Your task to perform on an android device: Open Yahoo.com Image 0: 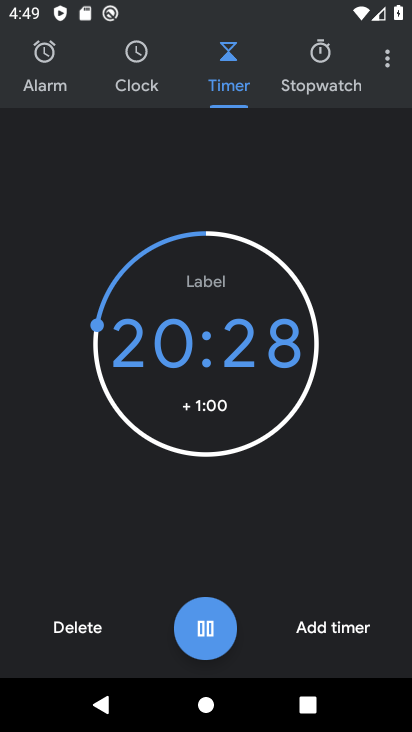
Step 0: press back button
Your task to perform on an android device: Open Yahoo.com Image 1: 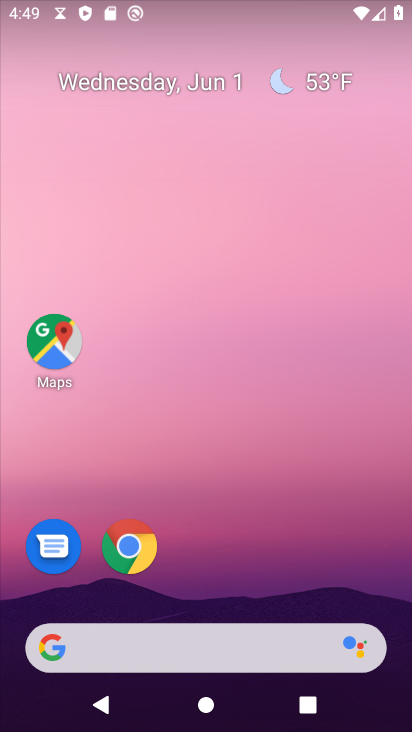
Step 1: drag from (242, 569) to (181, 55)
Your task to perform on an android device: Open Yahoo.com Image 2: 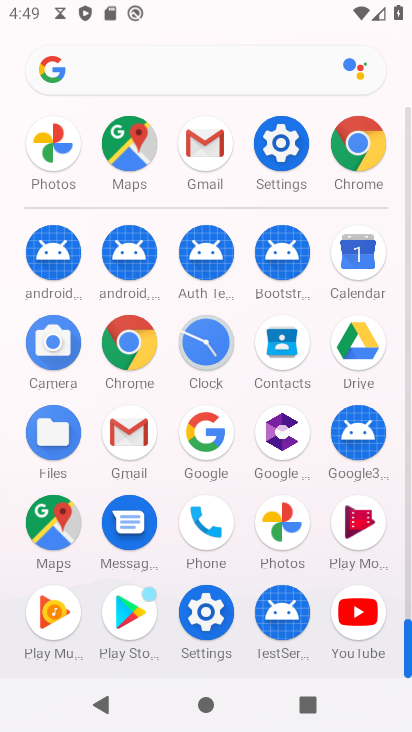
Step 2: drag from (10, 537) to (20, 197)
Your task to perform on an android device: Open Yahoo.com Image 3: 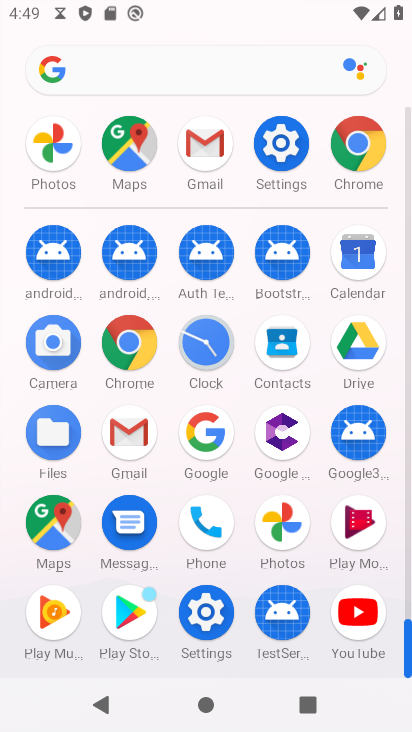
Step 3: click (129, 344)
Your task to perform on an android device: Open Yahoo.com Image 4: 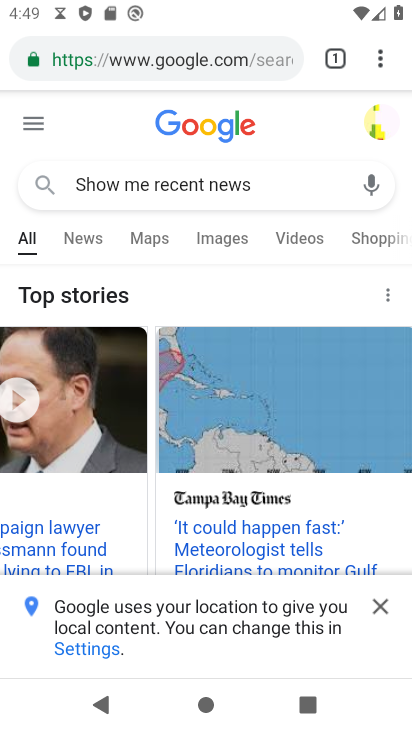
Step 4: click (205, 57)
Your task to perform on an android device: Open Yahoo.com Image 5: 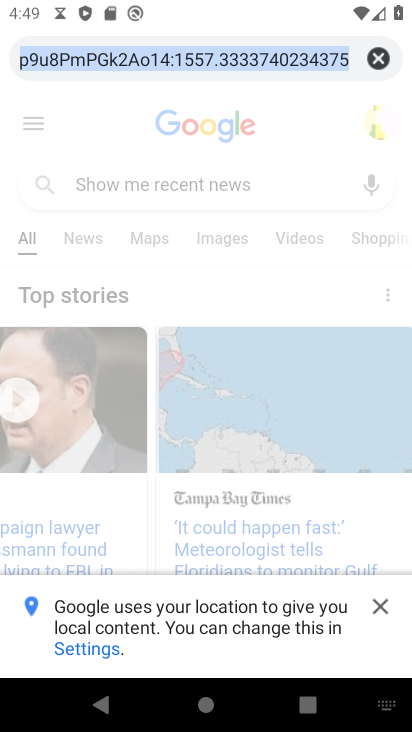
Step 5: click (379, 52)
Your task to perform on an android device: Open Yahoo.com Image 6: 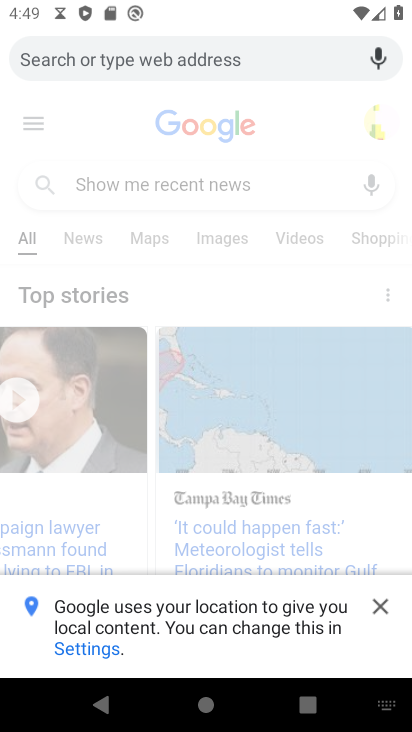
Step 6: type "Yahoo.com"
Your task to perform on an android device: Open Yahoo.com Image 7: 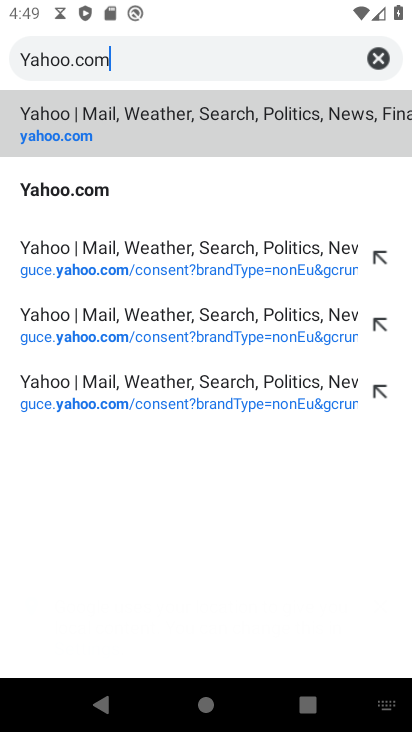
Step 7: type ""
Your task to perform on an android device: Open Yahoo.com Image 8: 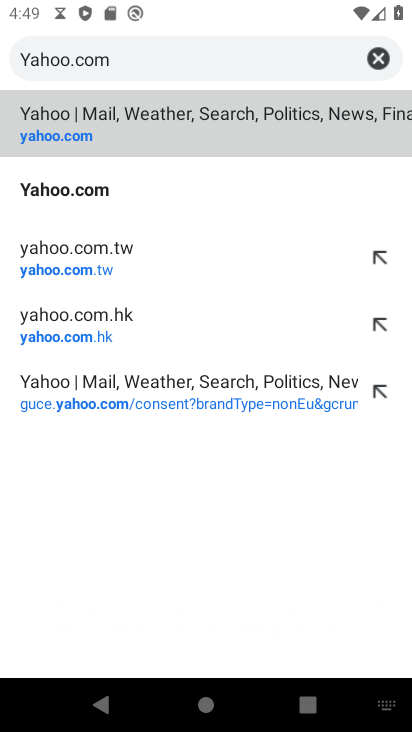
Step 8: click (109, 249)
Your task to perform on an android device: Open Yahoo.com Image 9: 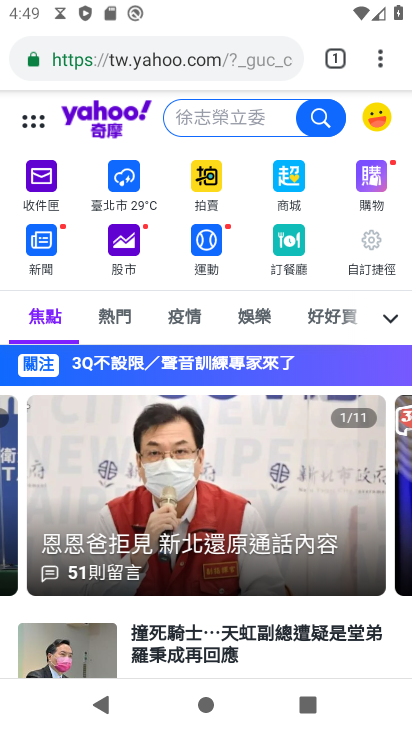
Step 9: press back button
Your task to perform on an android device: Open Yahoo.com Image 10: 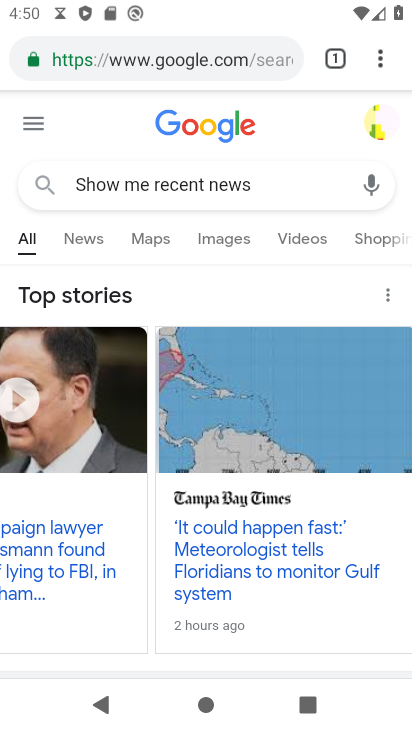
Step 10: click (199, 60)
Your task to perform on an android device: Open Yahoo.com Image 11: 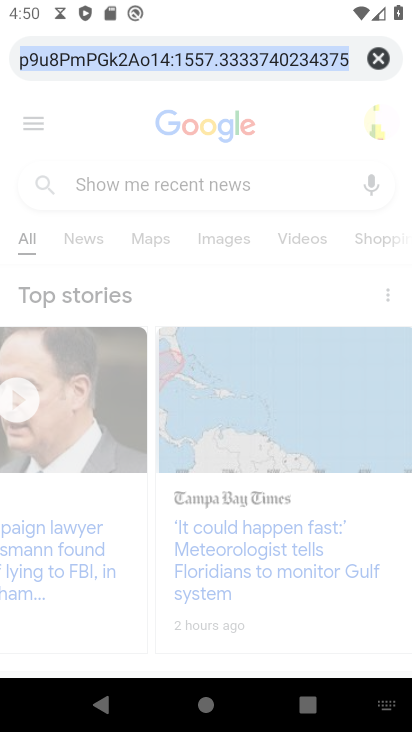
Step 11: click (374, 54)
Your task to perform on an android device: Open Yahoo.com Image 12: 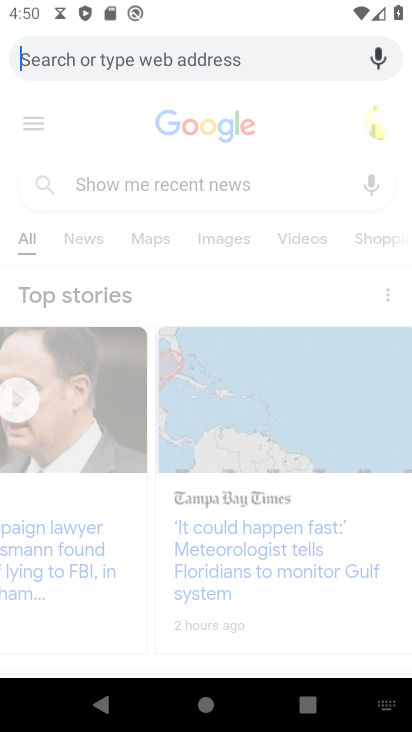
Step 12: type "Yahoo.com"
Your task to perform on an android device: Open Yahoo.com Image 13: 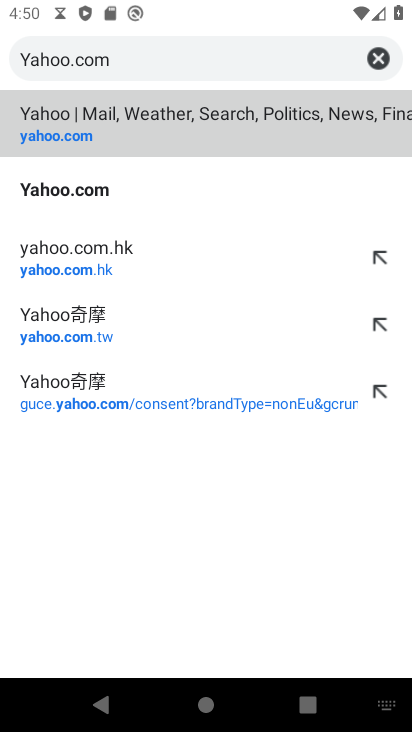
Step 13: click (88, 194)
Your task to perform on an android device: Open Yahoo.com Image 14: 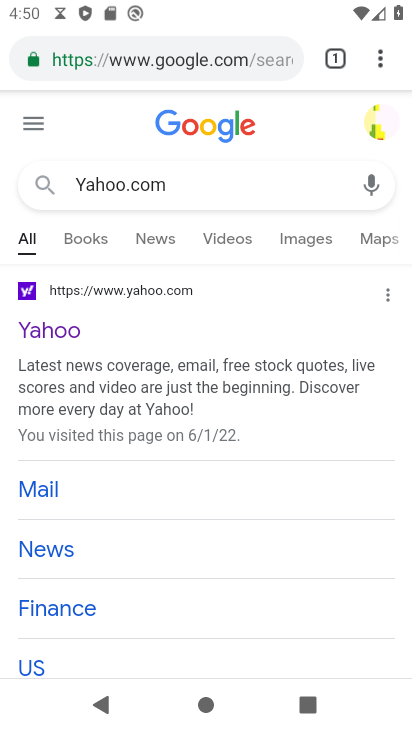
Step 14: click (73, 324)
Your task to perform on an android device: Open Yahoo.com Image 15: 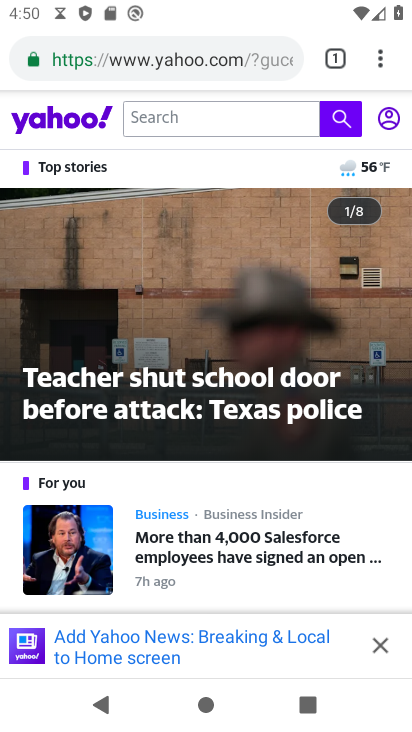
Step 15: task complete